Your task to perform on an android device: turn on the 24-hour format for clock Image 0: 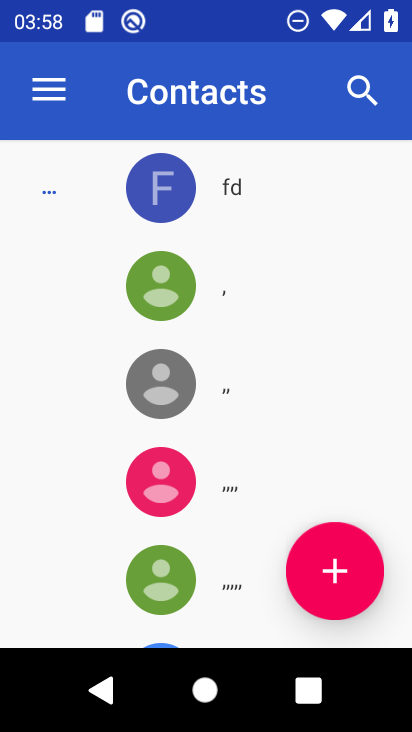
Step 0: press home button
Your task to perform on an android device: turn on the 24-hour format for clock Image 1: 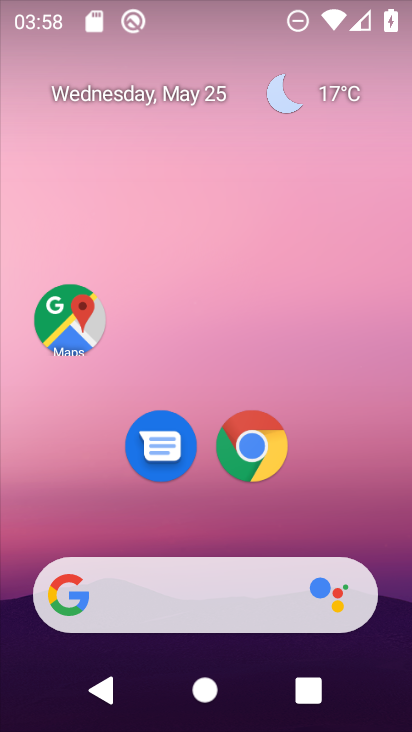
Step 1: drag from (221, 575) to (229, 93)
Your task to perform on an android device: turn on the 24-hour format for clock Image 2: 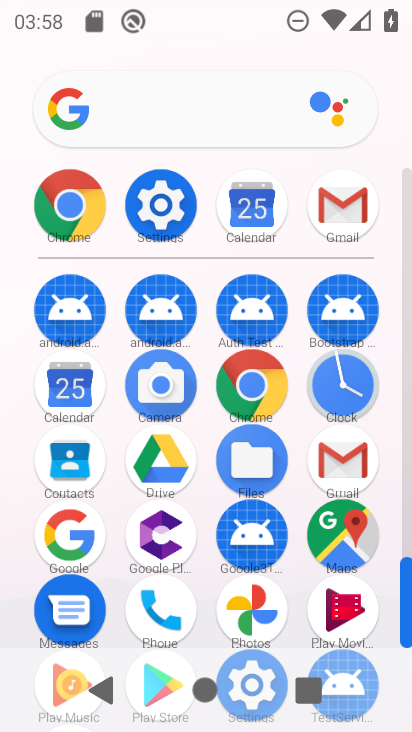
Step 2: click (150, 206)
Your task to perform on an android device: turn on the 24-hour format for clock Image 3: 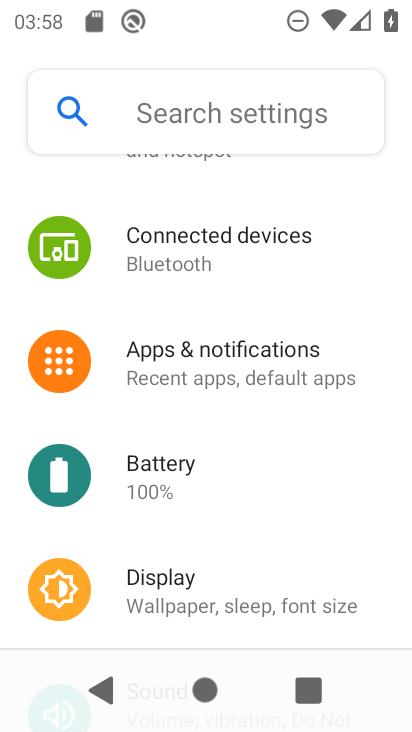
Step 3: drag from (173, 482) to (171, 197)
Your task to perform on an android device: turn on the 24-hour format for clock Image 4: 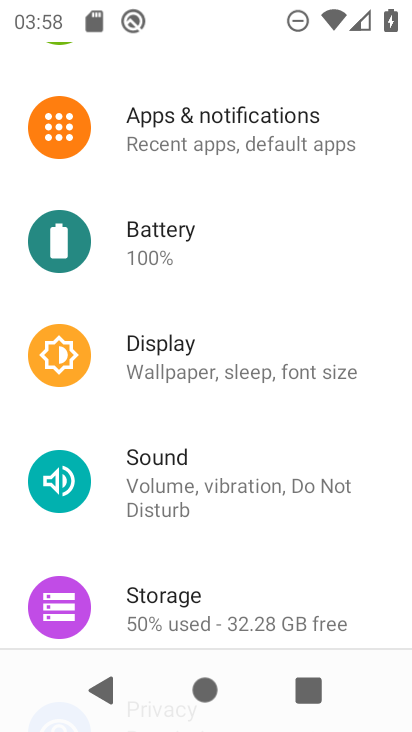
Step 4: drag from (218, 561) to (201, 144)
Your task to perform on an android device: turn on the 24-hour format for clock Image 5: 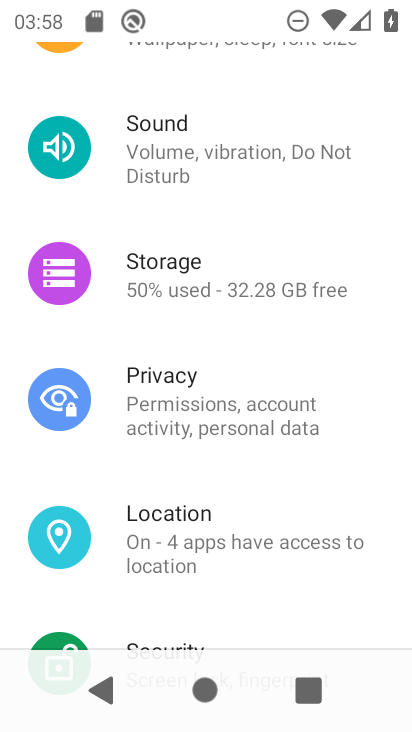
Step 5: drag from (226, 602) to (219, 141)
Your task to perform on an android device: turn on the 24-hour format for clock Image 6: 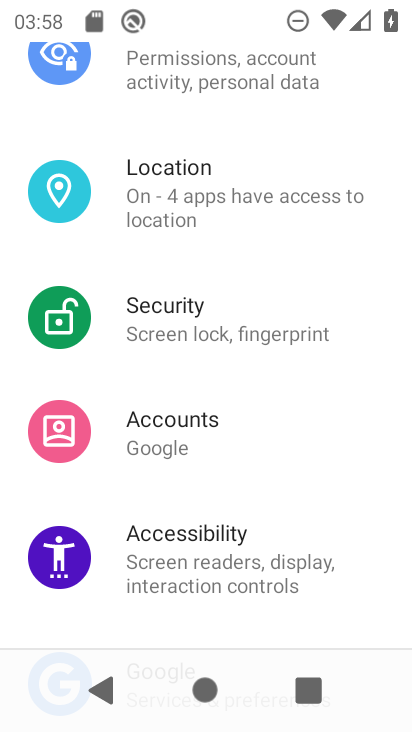
Step 6: drag from (216, 604) to (194, 15)
Your task to perform on an android device: turn on the 24-hour format for clock Image 7: 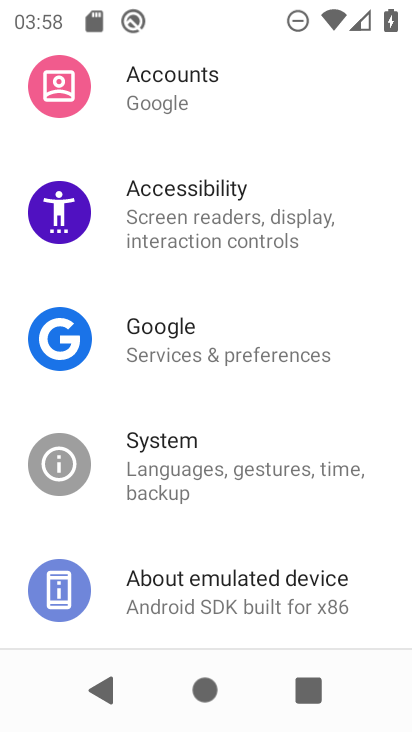
Step 7: click (220, 479)
Your task to perform on an android device: turn on the 24-hour format for clock Image 8: 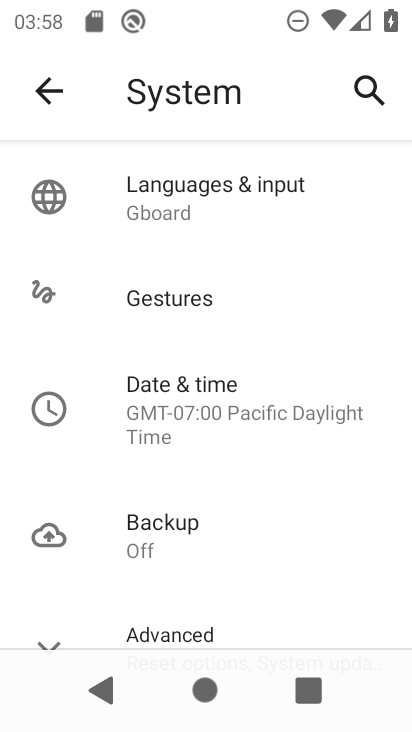
Step 8: click (172, 429)
Your task to perform on an android device: turn on the 24-hour format for clock Image 9: 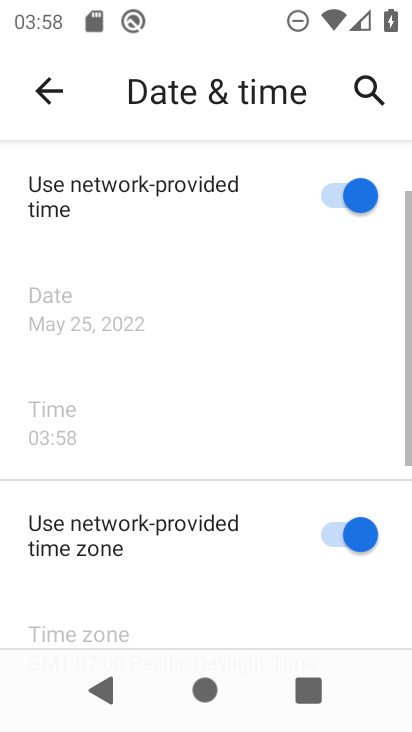
Step 9: task complete